Your task to perform on an android device: When is my next appointment? Image 0: 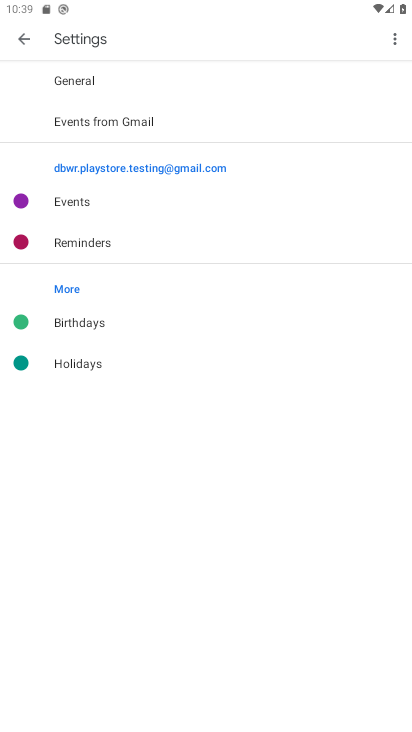
Step 0: press home button
Your task to perform on an android device: When is my next appointment? Image 1: 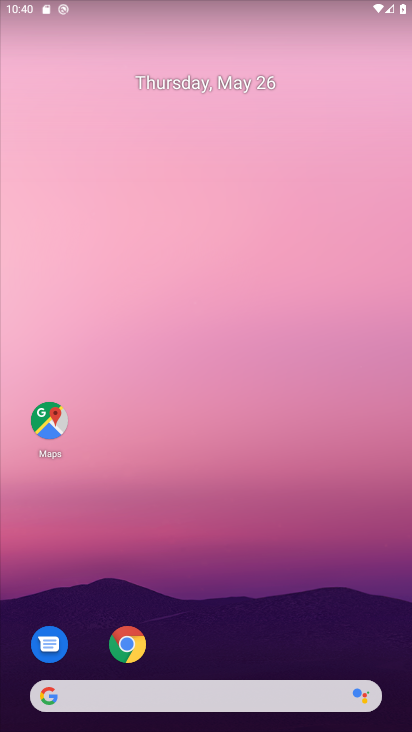
Step 1: drag from (371, 621) to (366, 305)
Your task to perform on an android device: When is my next appointment? Image 2: 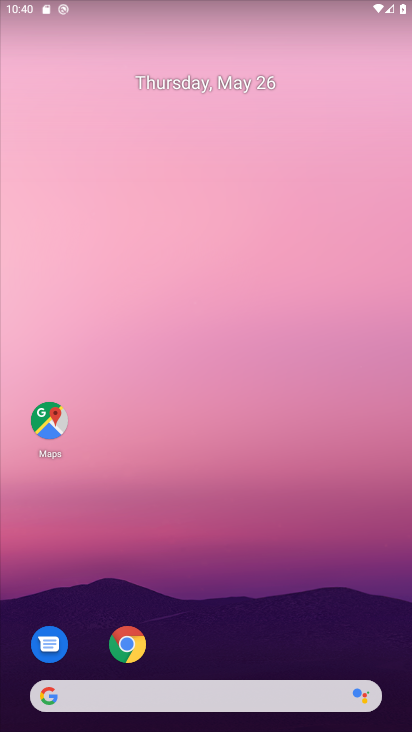
Step 2: drag from (355, 628) to (342, 227)
Your task to perform on an android device: When is my next appointment? Image 3: 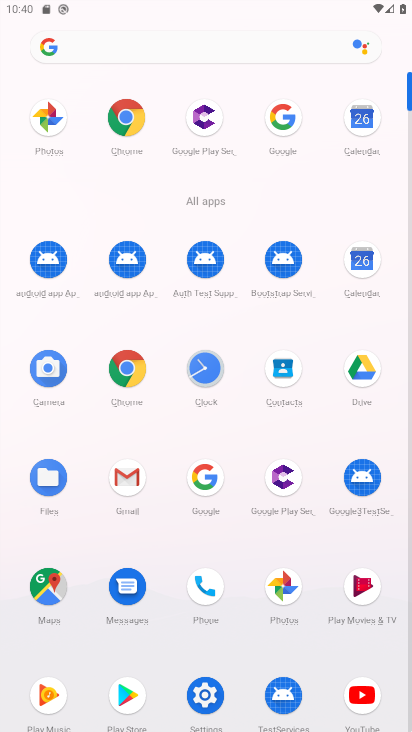
Step 3: click (357, 267)
Your task to perform on an android device: When is my next appointment? Image 4: 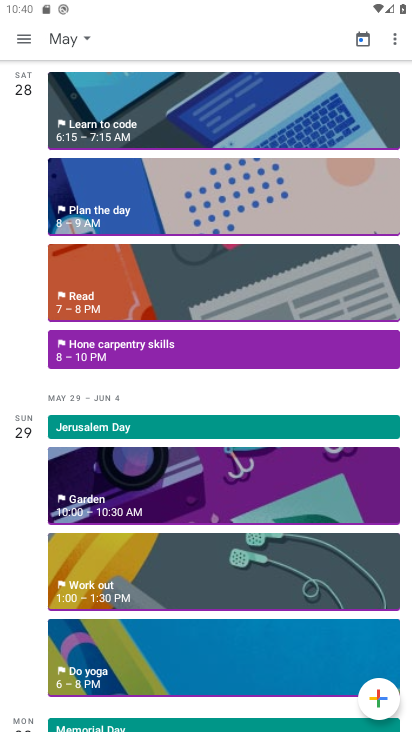
Step 4: click (151, 100)
Your task to perform on an android device: When is my next appointment? Image 5: 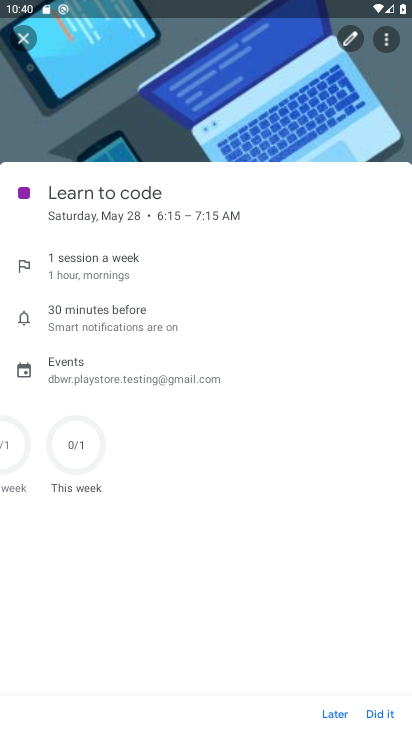
Step 5: task complete